Your task to perform on an android device: Go to Google maps Image 0: 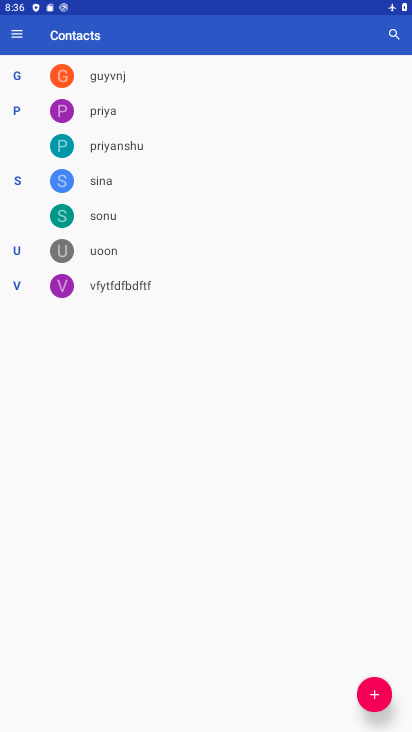
Step 0: press home button
Your task to perform on an android device: Go to Google maps Image 1: 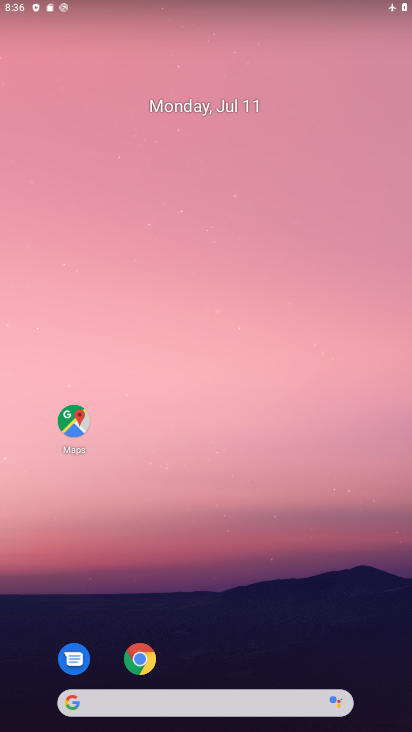
Step 1: click (67, 431)
Your task to perform on an android device: Go to Google maps Image 2: 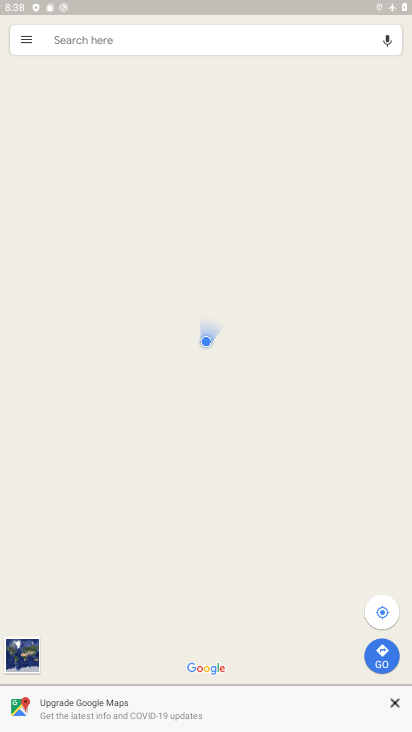
Step 2: task complete